Your task to perform on an android device: Is it going to rain today? Image 0: 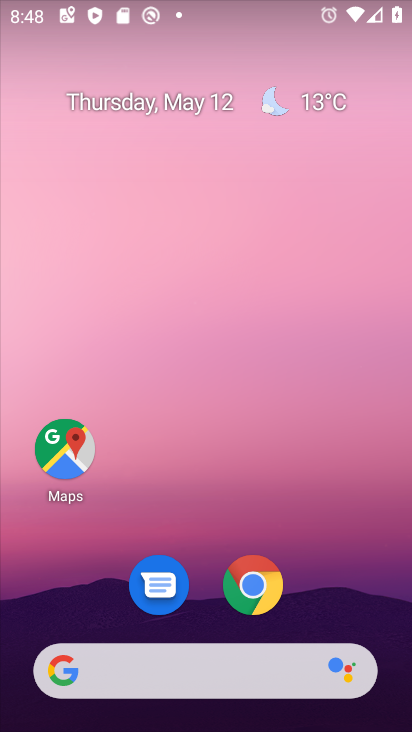
Step 0: click (305, 99)
Your task to perform on an android device: Is it going to rain today? Image 1: 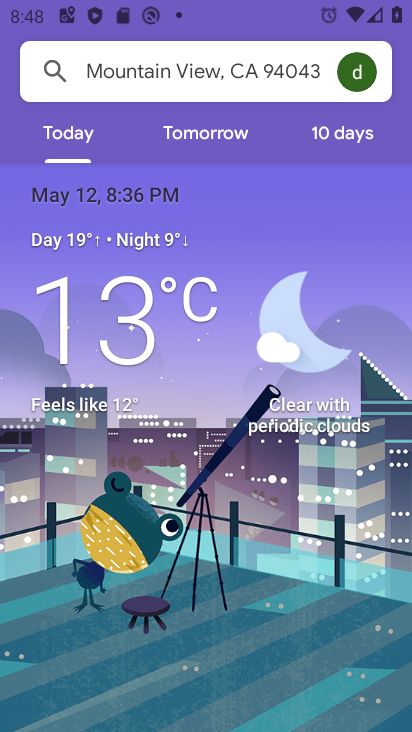
Step 1: task complete